Your task to perform on an android device: Go to battery settings Image 0: 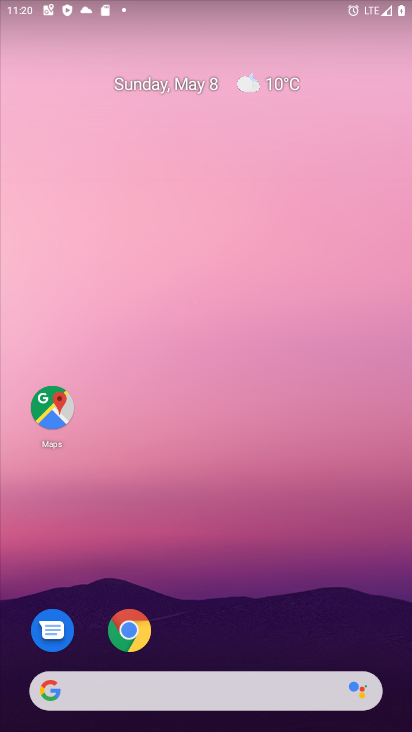
Step 0: drag from (355, 637) to (284, 31)
Your task to perform on an android device: Go to battery settings Image 1: 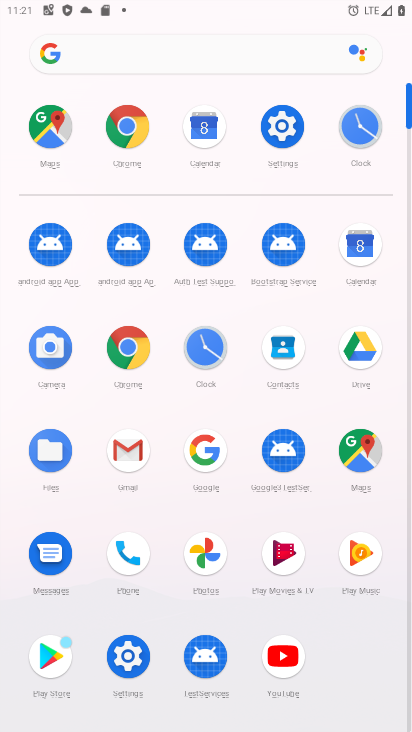
Step 1: click (125, 655)
Your task to perform on an android device: Go to battery settings Image 2: 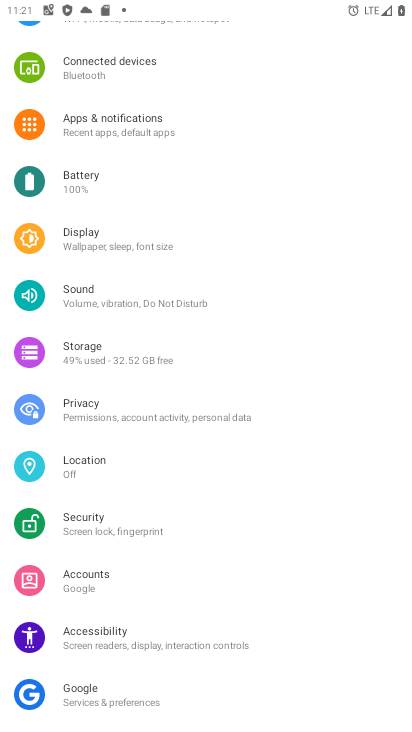
Step 2: click (97, 180)
Your task to perform on an android device: Go to battery settings Image 3: 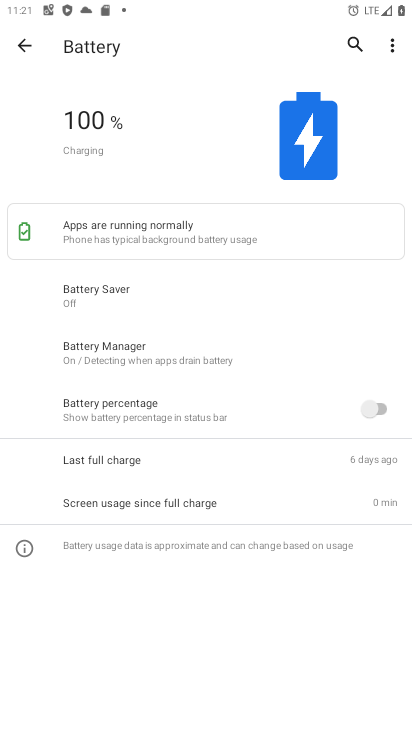
Step 3: task complete